Your task to perform on an android device: see sites visited before in the chrome app Image 0: 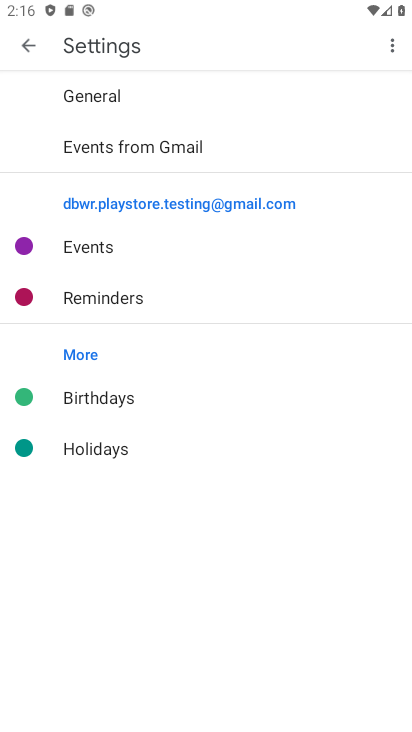
Step 0: press home button
Your task to perform on an android device: see sites visited before in the chrome app Image 1: 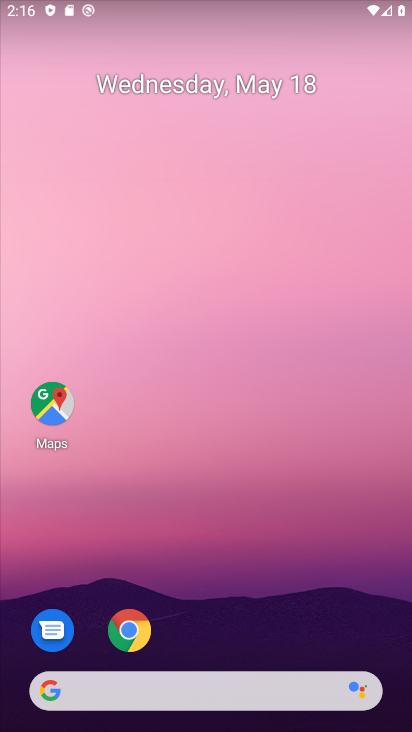
Step 1: click (121, 624)
Your task to perform on an android device: see sites visited before in the chrome app Image 2: 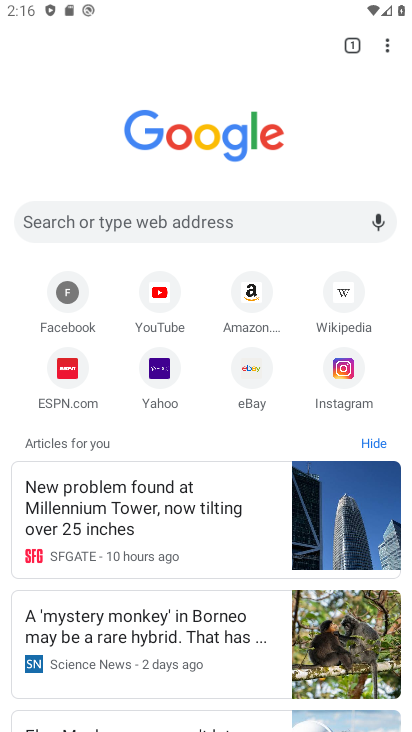
Step 2: click (388, 51)
Your task to perform on an android device: see sites visited before in the chrome app Image 3: 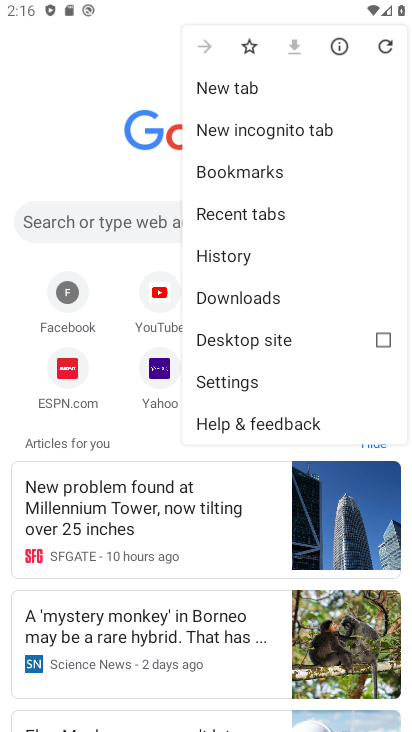
Step 3: click (253, 248)
Your task to perform on an android device: see sites visited before in the chrome app Image 4: 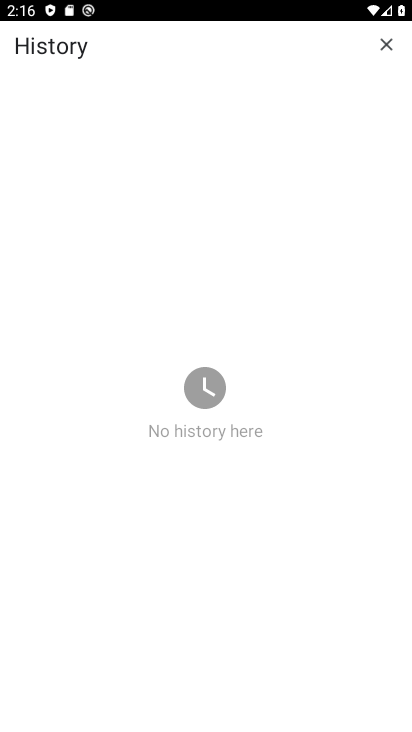
Step 4: task complete